Your task to perform on an android device: Open eBay Image 0: 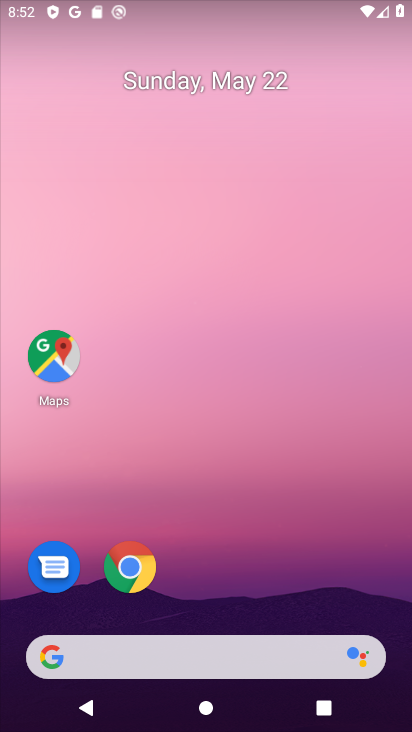
Step 0: click (136, 571)
Your task to perform on an android device: Open eBay Image 1: 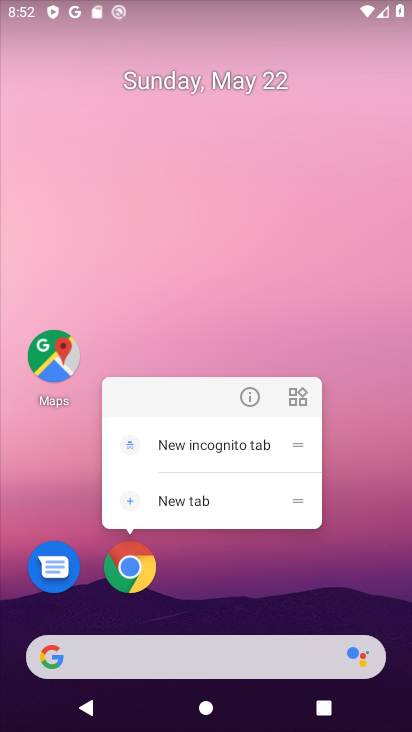
Step 1: click (137, 566)
Your task to perform on an android device: Open eBay Image 2: 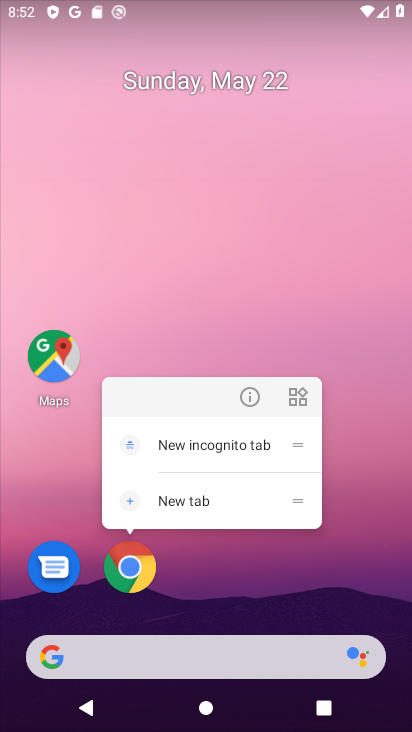
Step 2: click (131, 567)
Your task to perform on an android device: Open eBay Image 3: 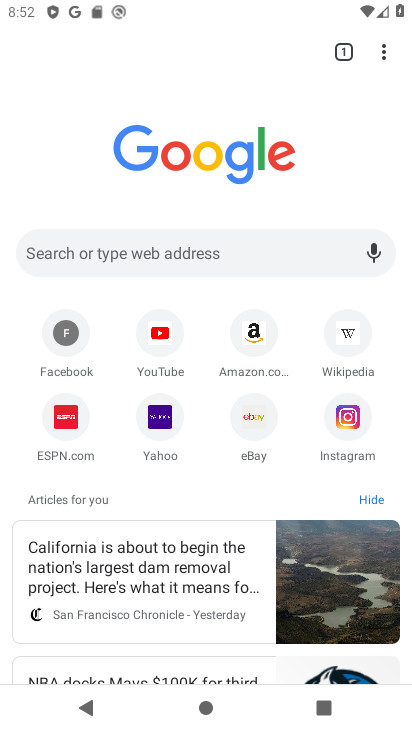
Step 3: click (260, 423)
Your task to perform on an android device: Open eBay Image 4: 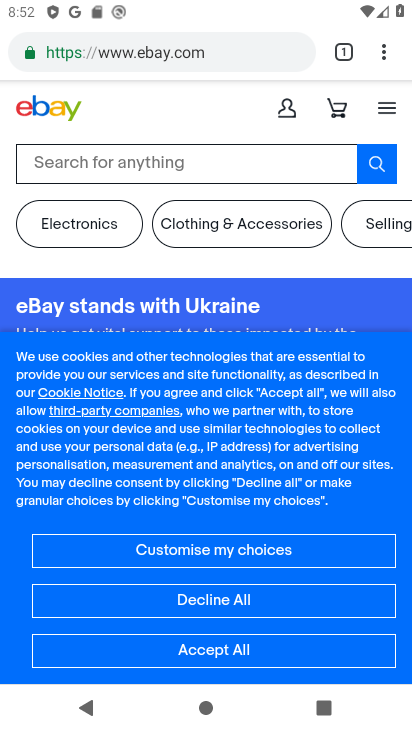
Step 4: task complete